Your task to perform on an android device: Open wifi settings Image 0: 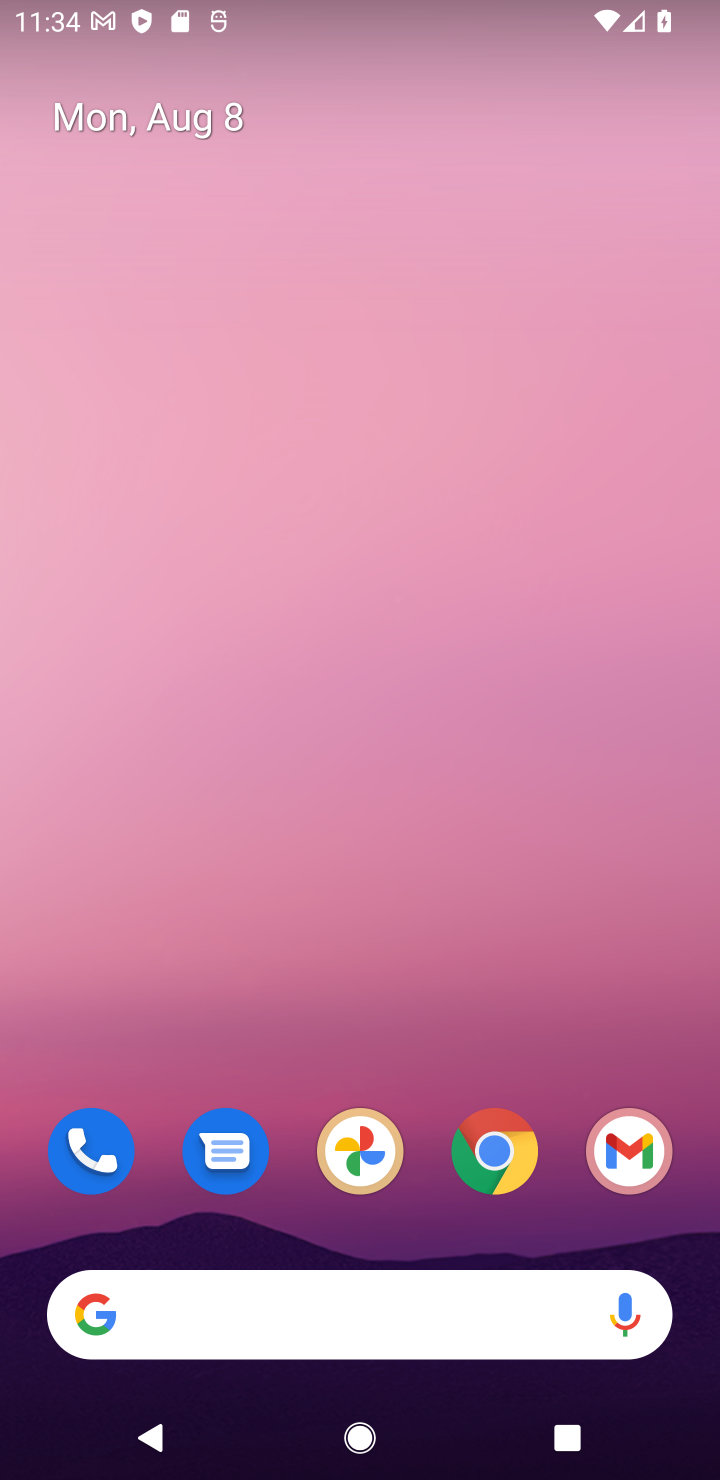
Step 0: drag from (296, 1079) to (304, 407)
Your task to perform on an android device: Open wifi settings Image 1: 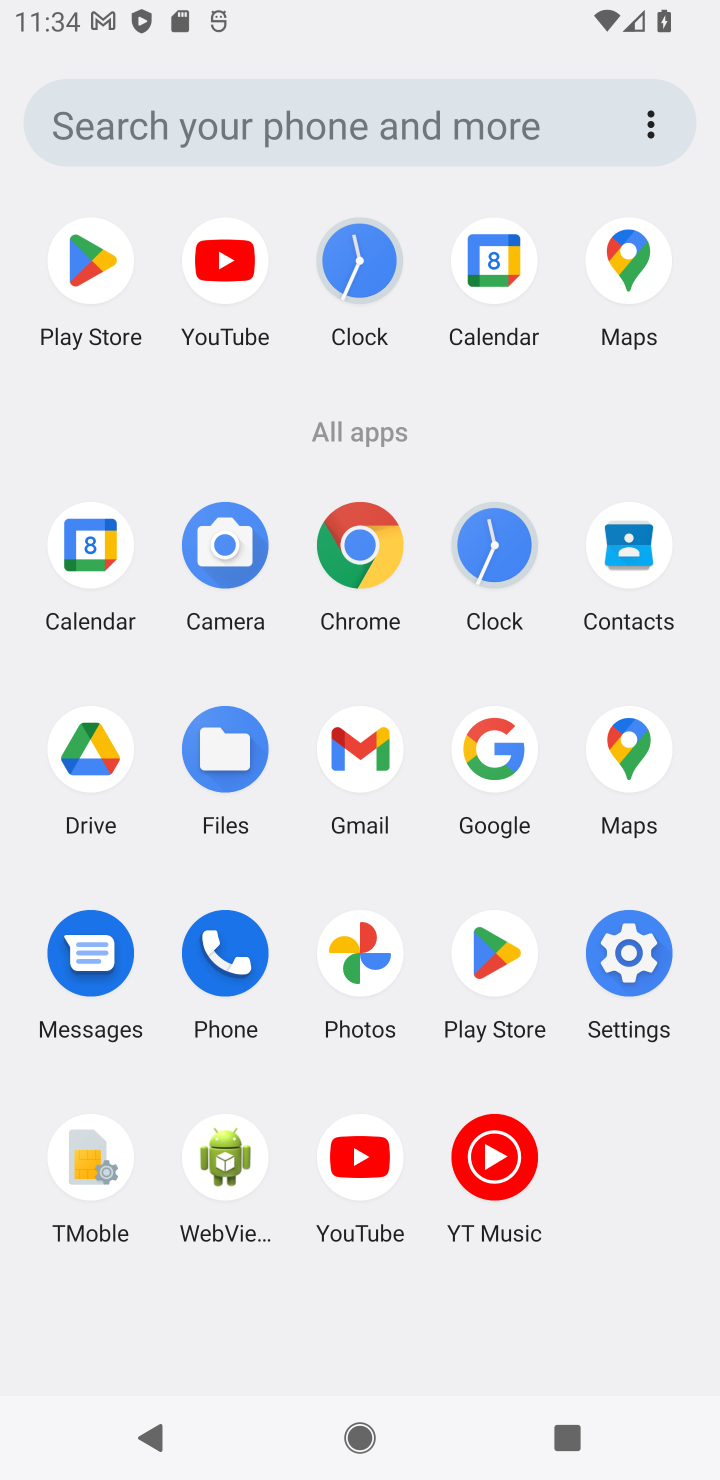
Step 1: click (633, 970)
Your task to perform on an android device: Open wifi settings Image 2: 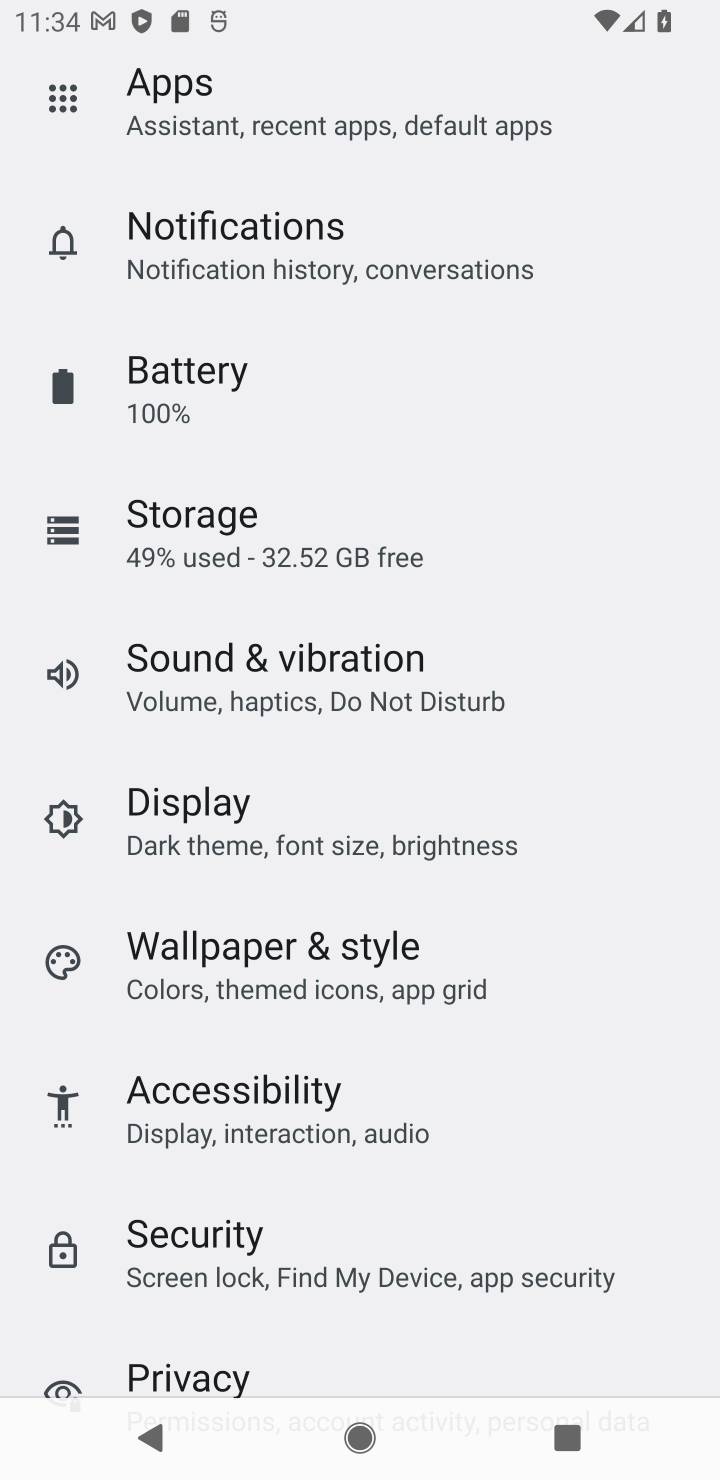
Step 2: drag from (260, 171) to (241, 1218)
Your task to perform on an android device: Open wifi settings Image 3: 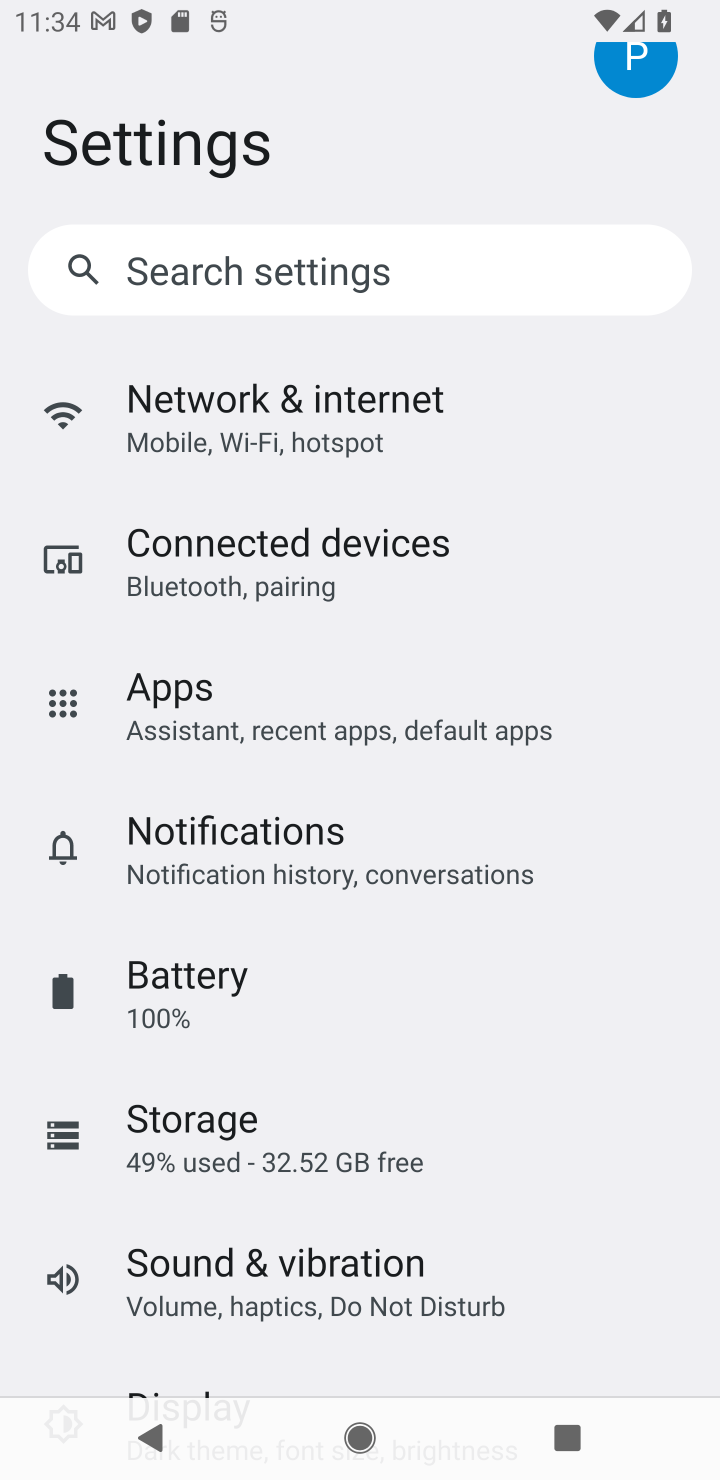
Step 3: click (153, 424)
Your task to perform on an android device: Open wifi settings Image 4: 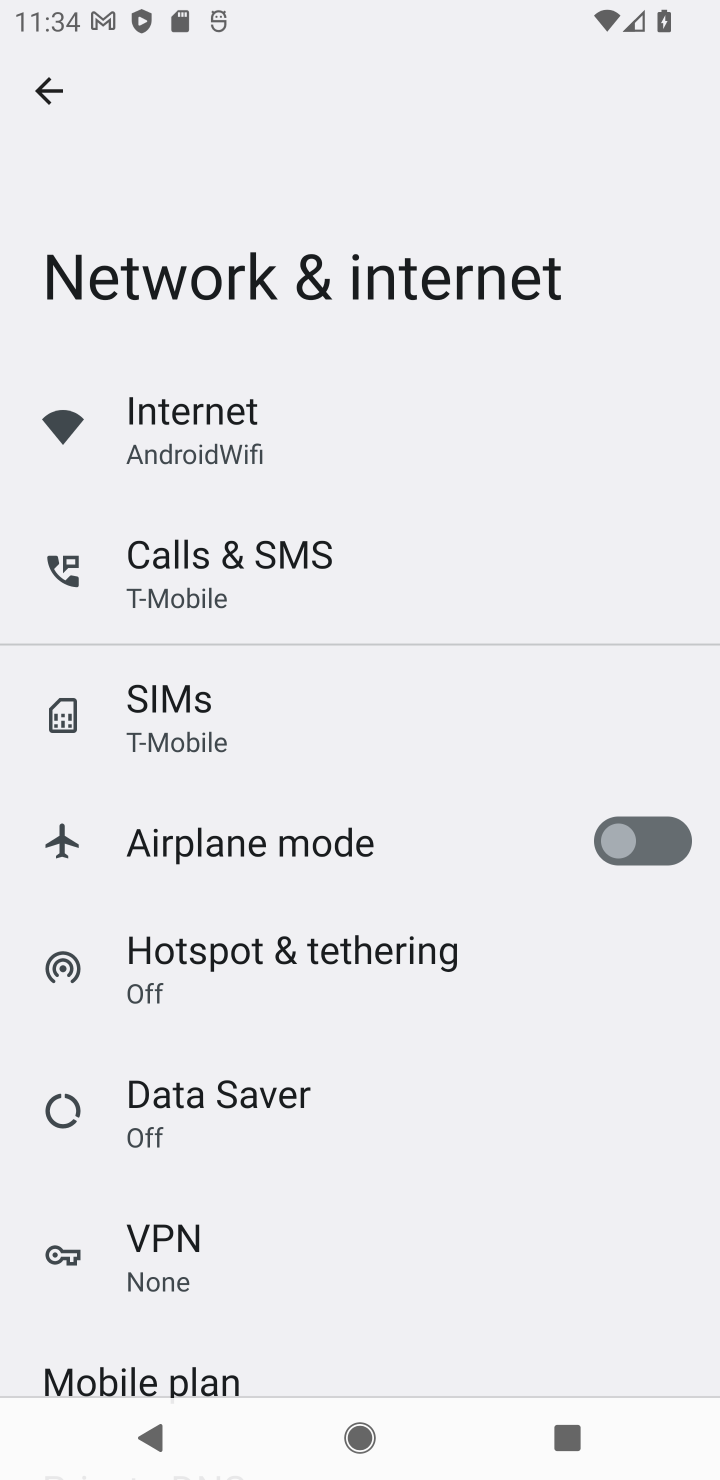
Step 4: click (158, 429)
Your task to perform on an android device: Open wifi settings Image 5: 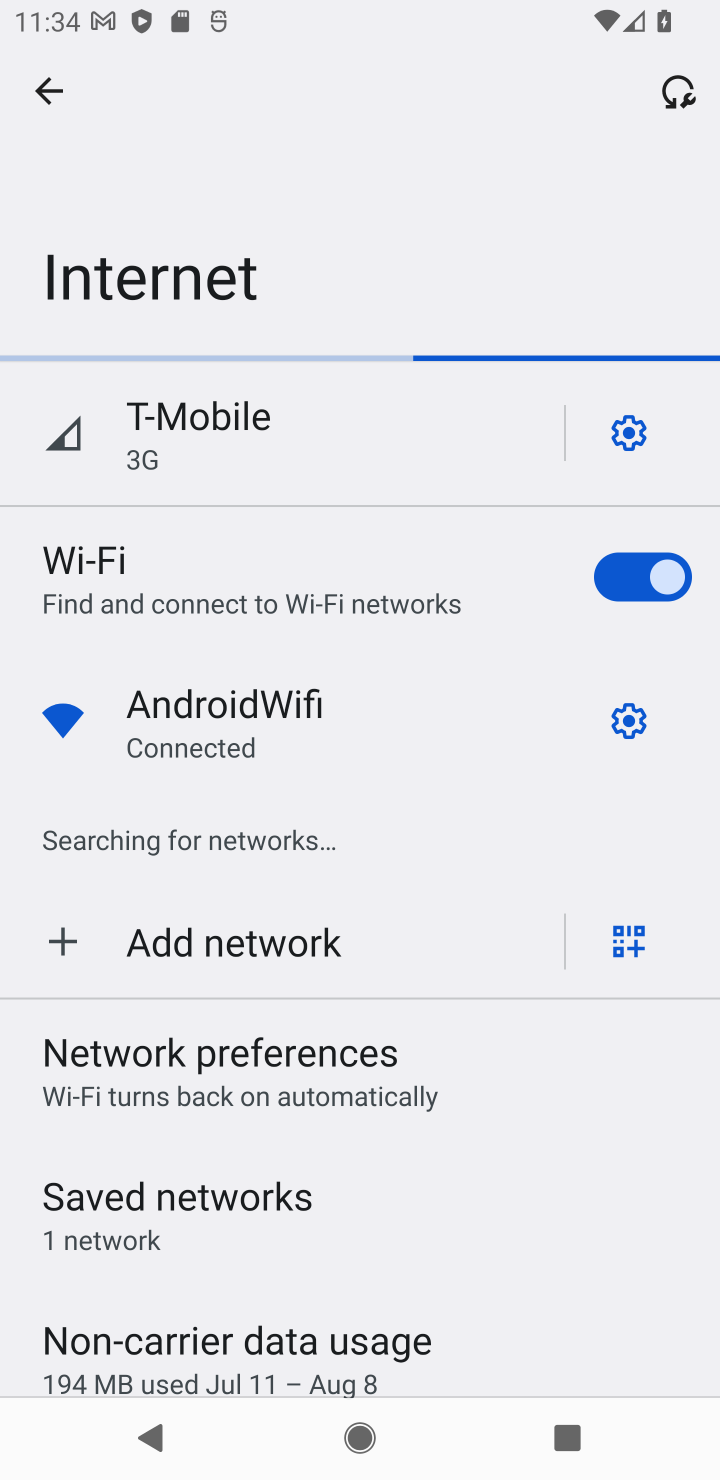
Step 5: click (641, 711)
Your task to perform on an android device: Open wifi settings Image 6: 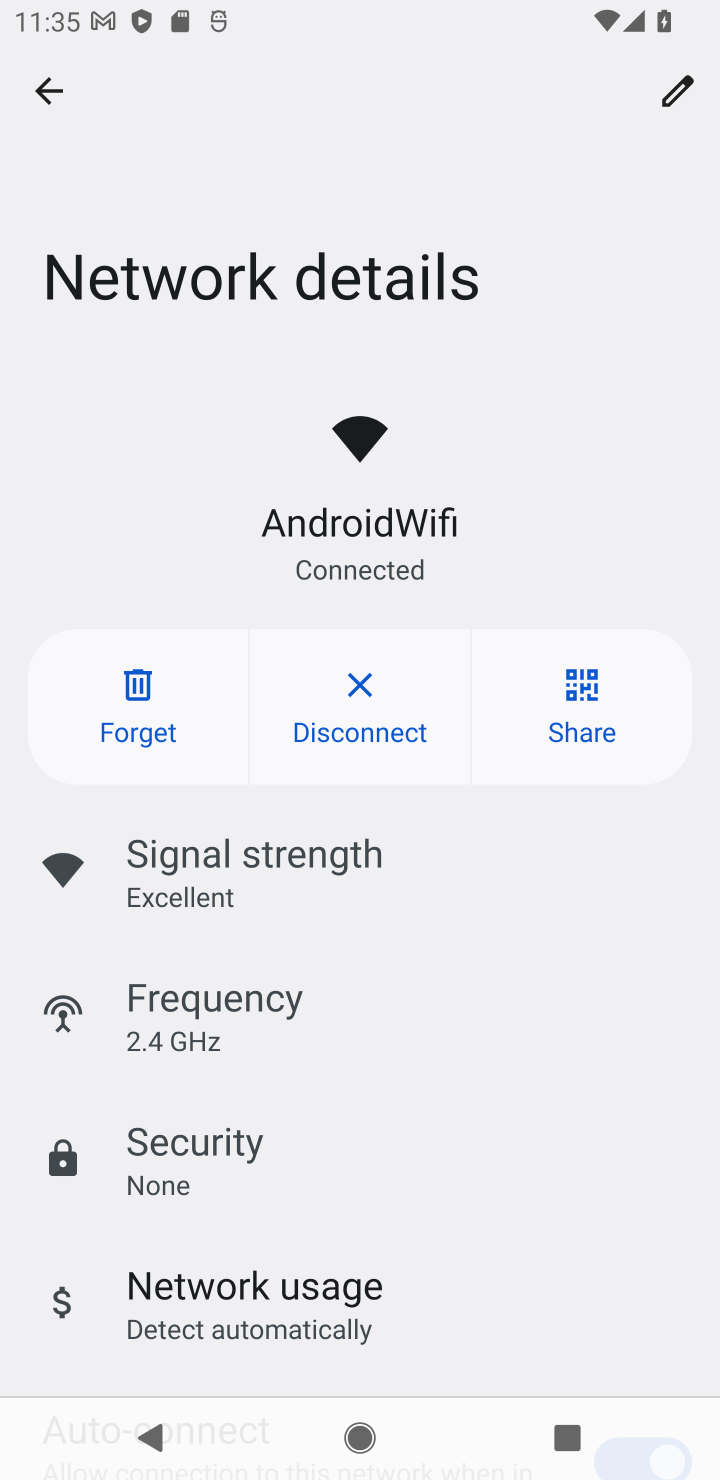
Step 6: task complete